Your task to perform on an android device: move an email to a new category in the gmail app Image 0: 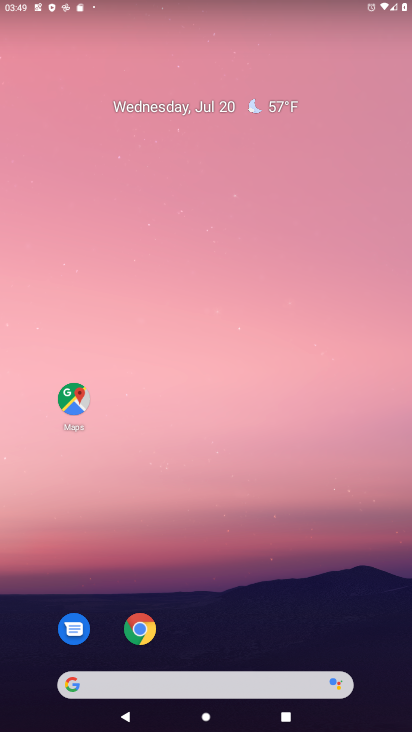
Step 0: drag from (366, 658) to (329, 90)
Your task to perform on an android device: move an email to a new category in the gmail app Image 1: 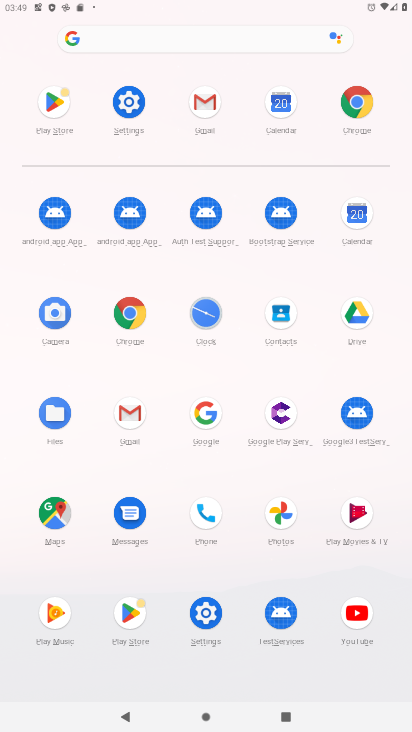
Step 1: click (127, 412)
Your task to perform on an android device: move an email to a new category in the gmail app Image 2: 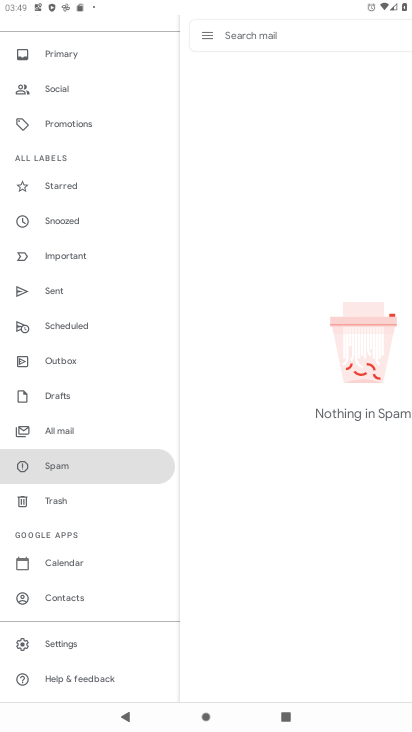
Step 2: click (62, 428)
Your task to perform on an android device: move an email to a new category in the gmail app Image 3: 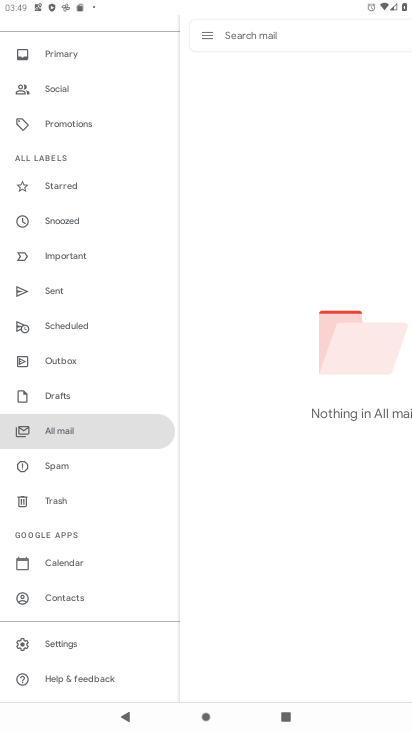
Step 3: task complete